Your task to perform on an android device: turn off priority inbox in the gmail app Image 0: 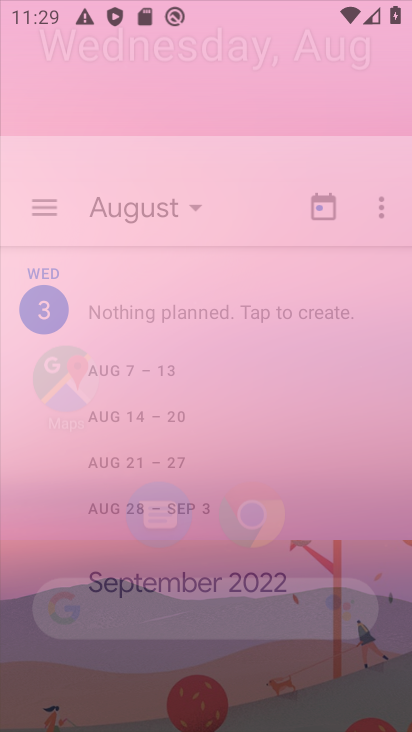
Step 0: drag from (346, 527) to (305, 95)
Your task to perform on an android device: turn off priority inbox in the gmail app Image 1: 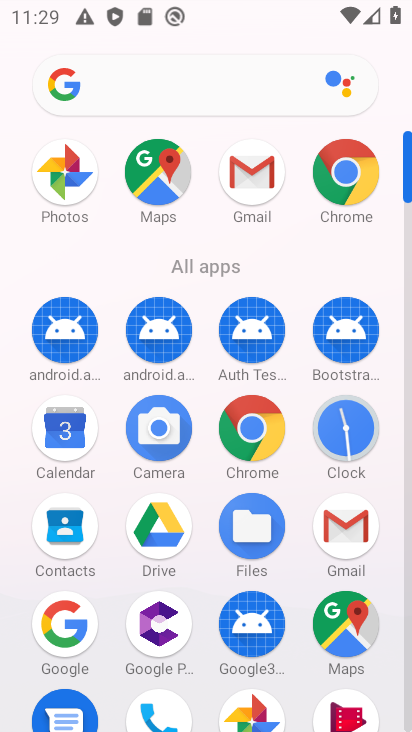
Step 1: click (256, 148)
Your task to perform on an android device: turn off priority inbox in the gmail app Image 2: 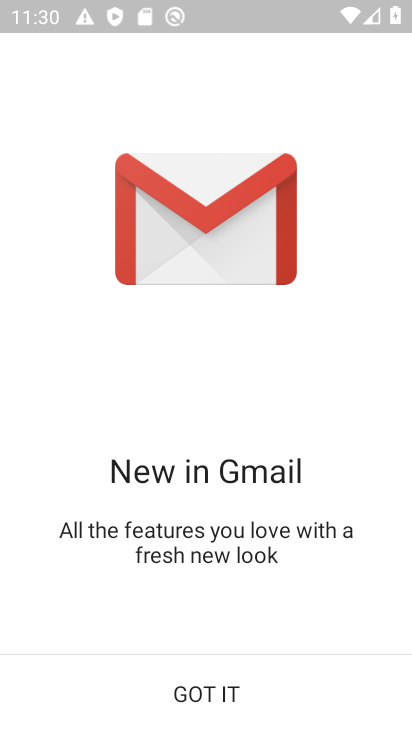
Step 2: click (220, 708)
Your task to perform on an android device: turn off priority inbox in the gmail app Image 3: 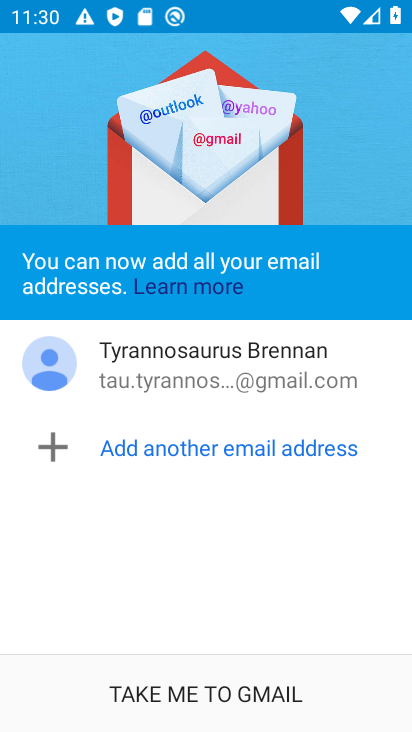
Step 3: click (220, 703)
Your task to perform on an android device: turn off priority inbox in the gmail app Image 4: 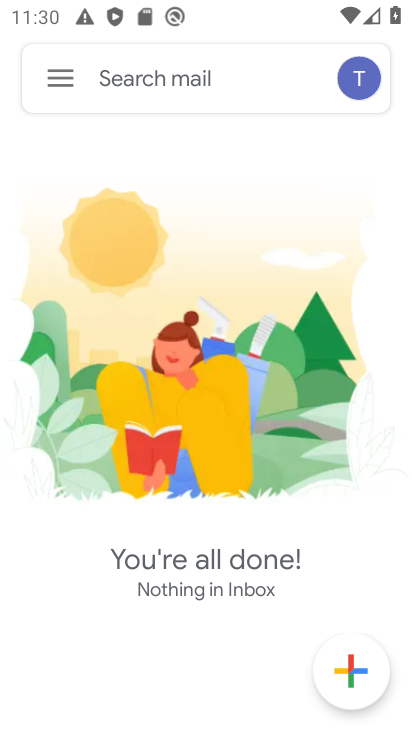
Step 4: click (48, 68)
Your task to perform on an android device: turn off priority inbox in the gmail app Image 5: 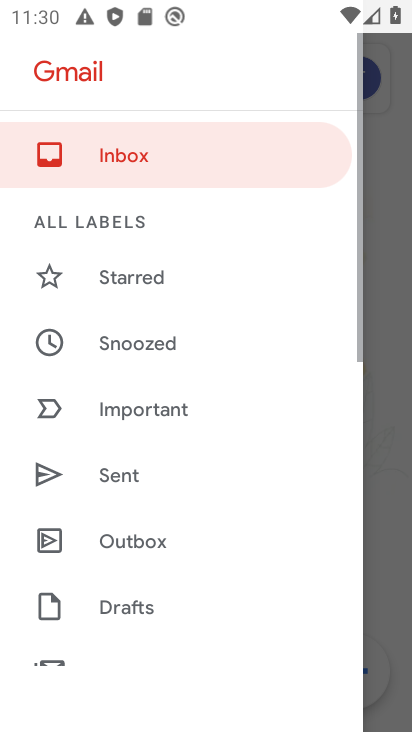
Step 5: drag from (228, 424) to (256, 140)
Your task to perform on an android device: turn off priority inbox in the gmail app Image 6: 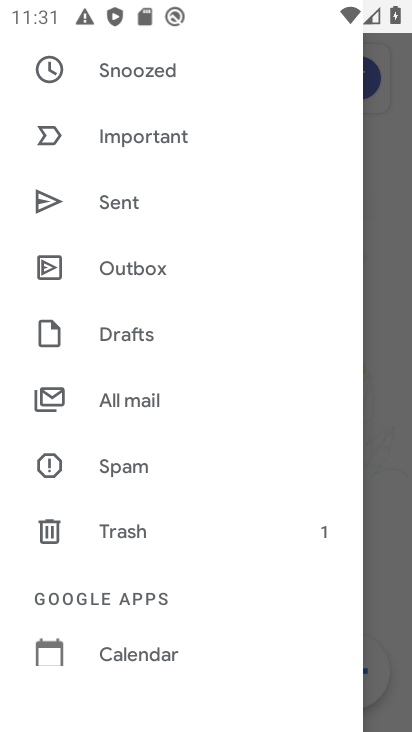
Step 6: drag from (206, 620) to (197, 128)
Your task to perform on an android device: turn off priority inbox in the gmail app Image 7: 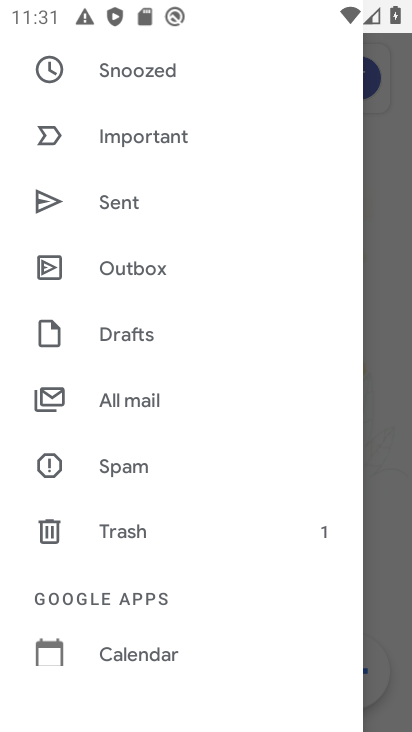
Step 7: drag from (120, 606) to (259, 106)
Your task to perform on an android device: turn off priority inbox in the gmail app Image 8: 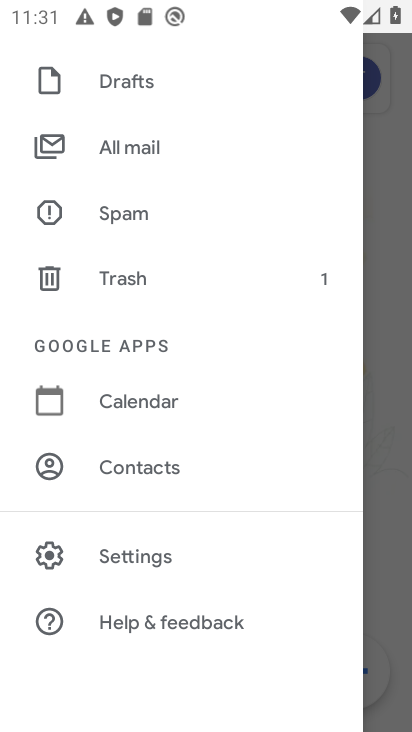
Step 8: click (163, 575)
Your task to perform on an android device: turn off priority inbox in the gmail app Image 9: 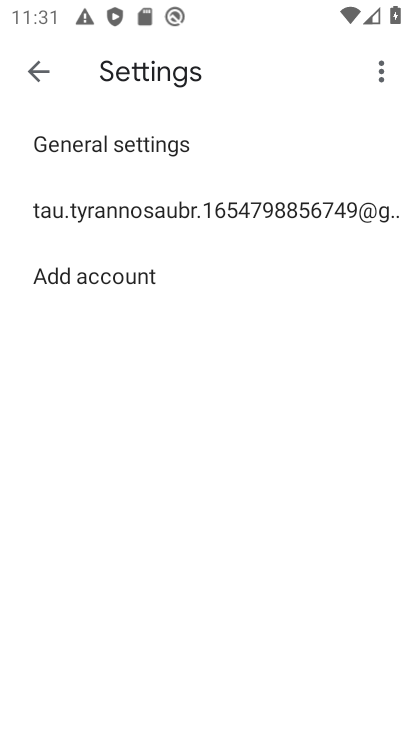
Step 9: click (176, 221)
Your task to perform on an android device: turn off priority inbox in the gmail app Image 10: 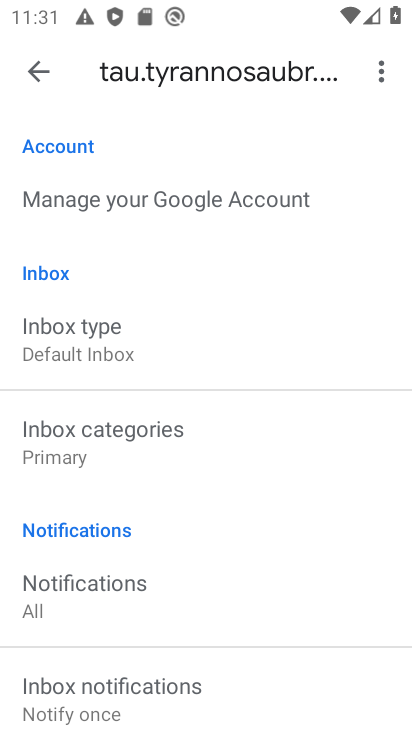
Step 10: click (100, 345)
Your task to perform on an android device: turn off priority inbox in the gmail app Image 11: 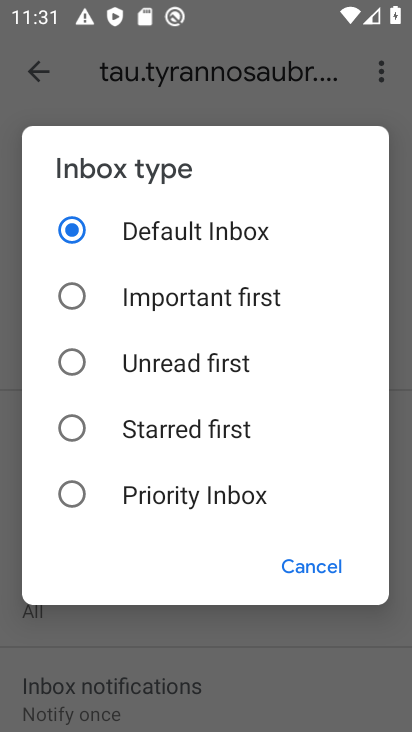
Step 11: task complete